Your task to perform on an android device: Open Reddit.com Image 0: 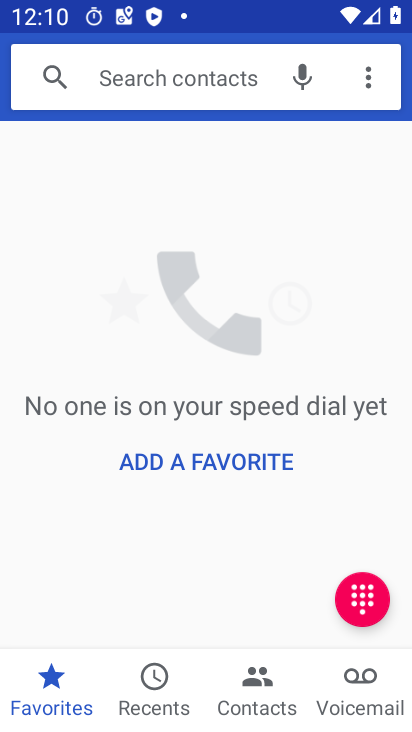
Step 0: press back button
Your task to perform on an android device: Open Reddit.com Image 1: 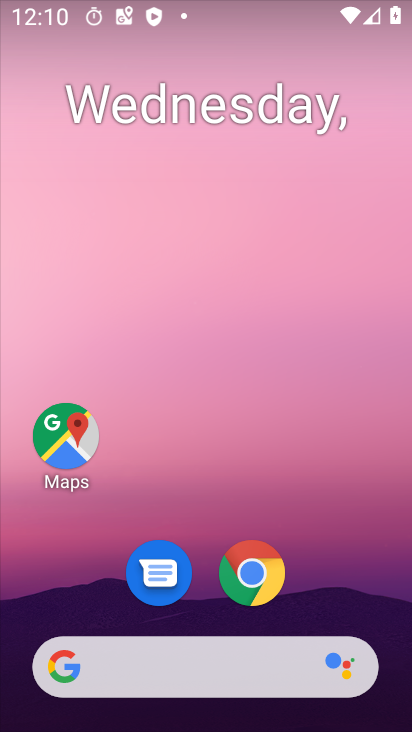
Step 1: drag from (346, 465) to (171, 8)
Your task to perform on an android device: Open Reddit.com Image 2: 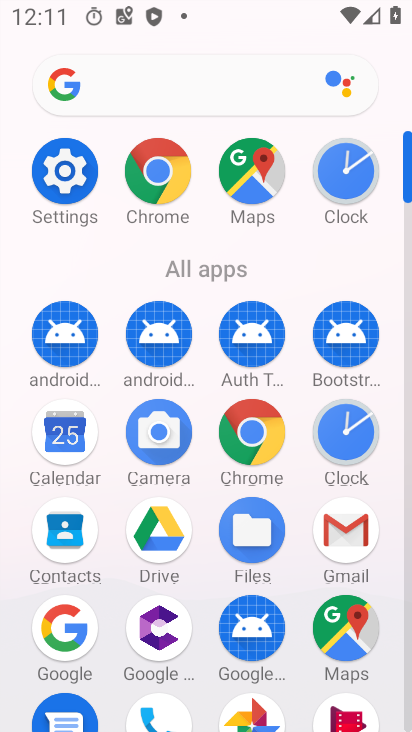
Step 2: drag from (254, 222) to (234, 15)
Your task to perform on an android device: Open Reddit.com Image 3: 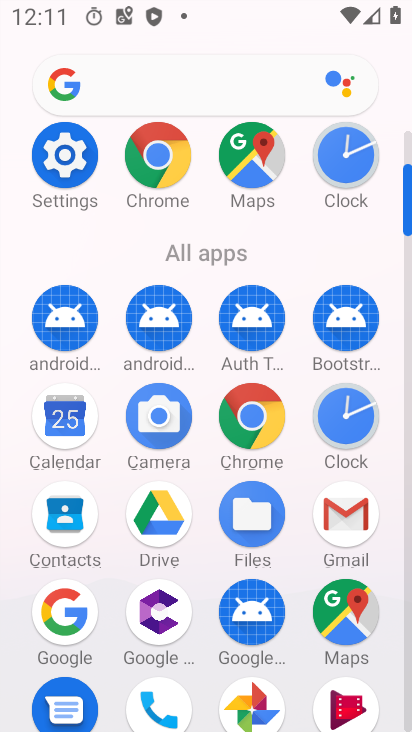
Step 3: click (176, 32)
Your task to perform on an android device: Open Reddit.com Image 4: 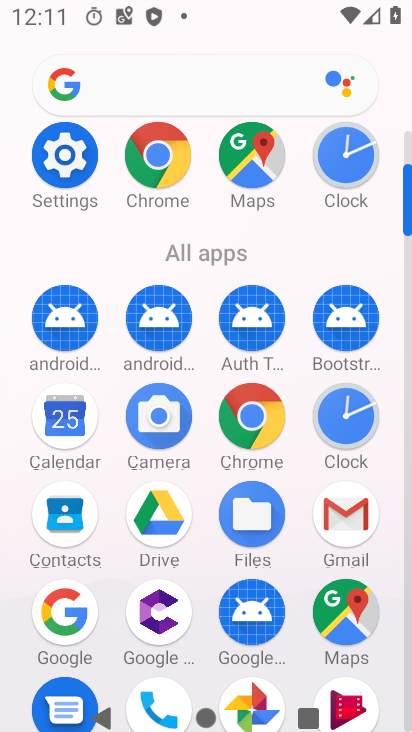
Step 4: click (181, 16)
Your task to perform on an android device: Open Reddit.com Image 5: 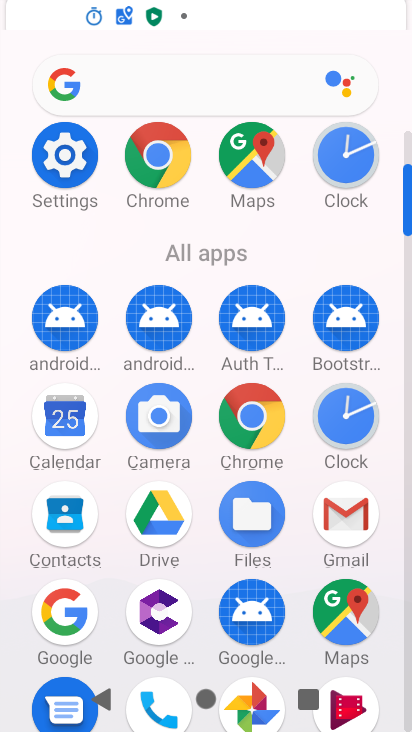
Step 5: drag from (248, 389) to (159, 14)
Your task to perform on an android device: Open Reddit.com Image 6: 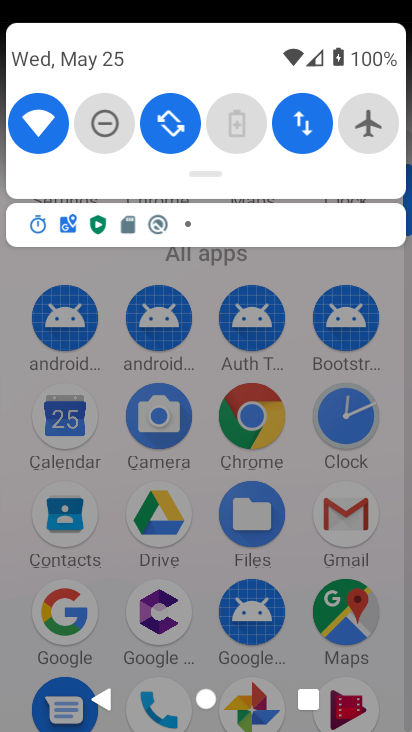
Step 6: drag from (163, 15) to (204, 7)
Your task to perform on an android device: Open Reddit.com Image 7: 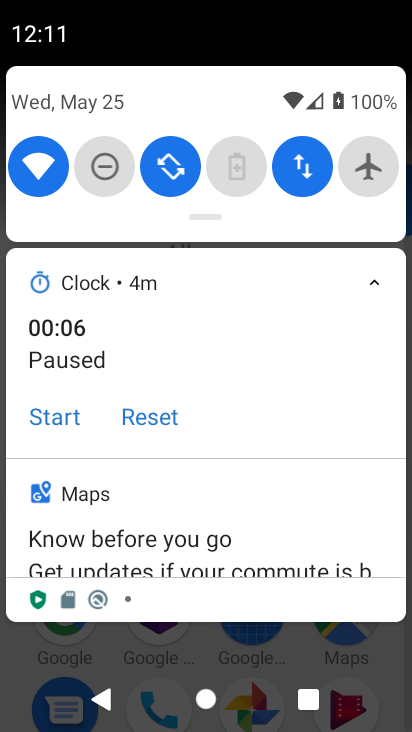
Step 7: click (207, 33)
Your task to perform on an android device: Open Reddit.com Image 8: 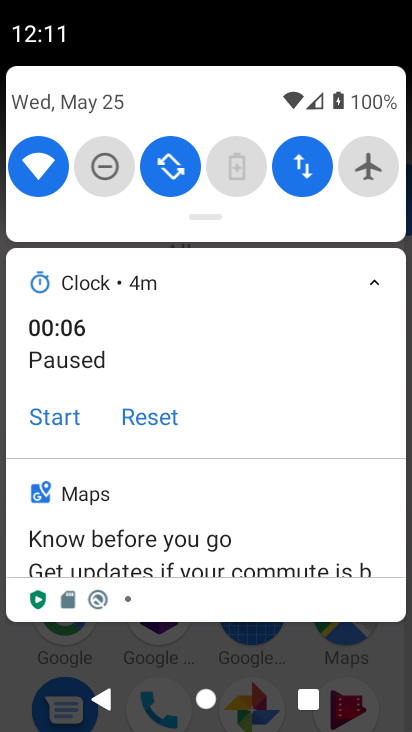
Step 8: click (207, 33)
Your task to perform on an android device: Open Reddit.com Image 9: 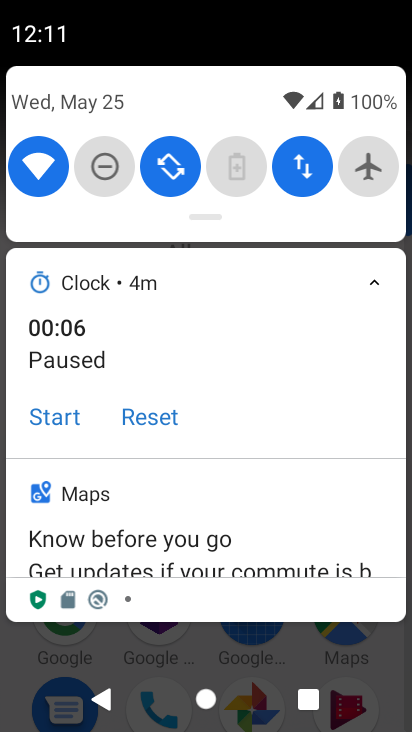
Step 9: click (207, 33)
Your task to perform on an android device: Open Reddit.com Image 10: 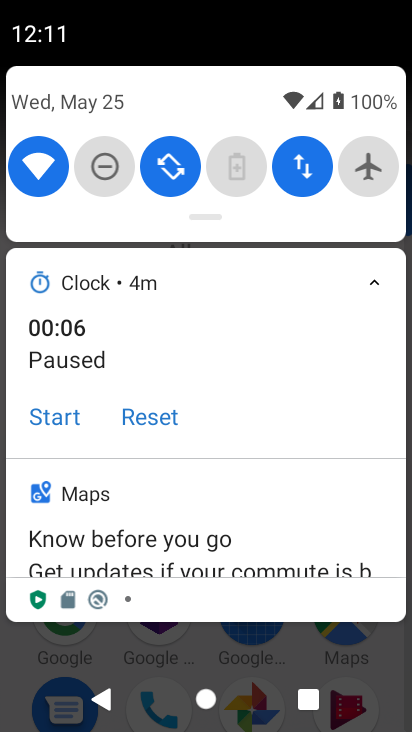
Step 10: click (206, 32)
Your task to perform on an android device: Open Reddit.com Image 11: 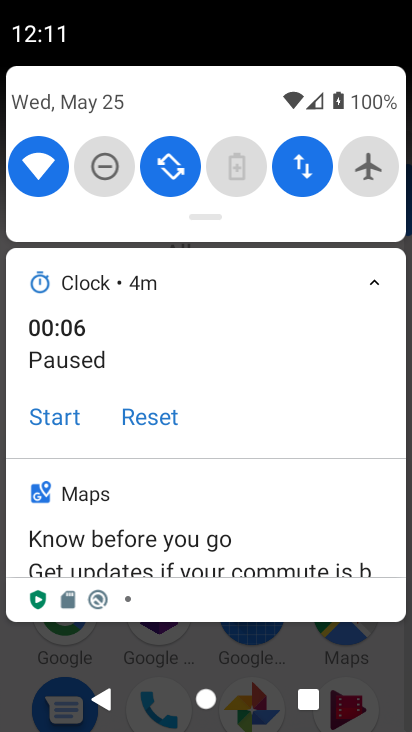
Step 11: click (206, 32)
Your task to perform on an android device: Open Reddit.com Image 12: 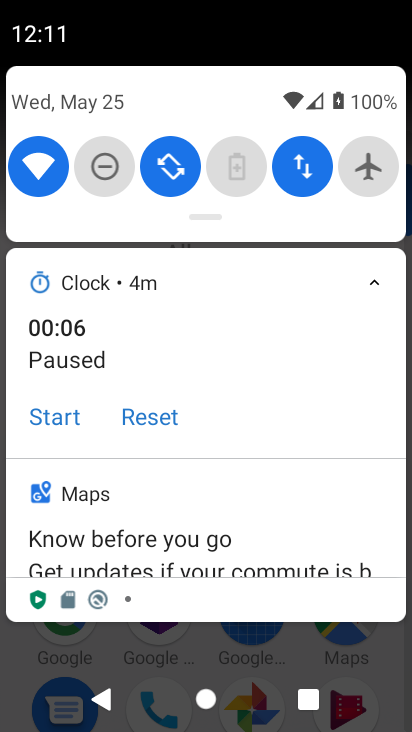
Step 12: click (206, 32)
Your task to perform on an android device: Open Reddit.com Image 13: 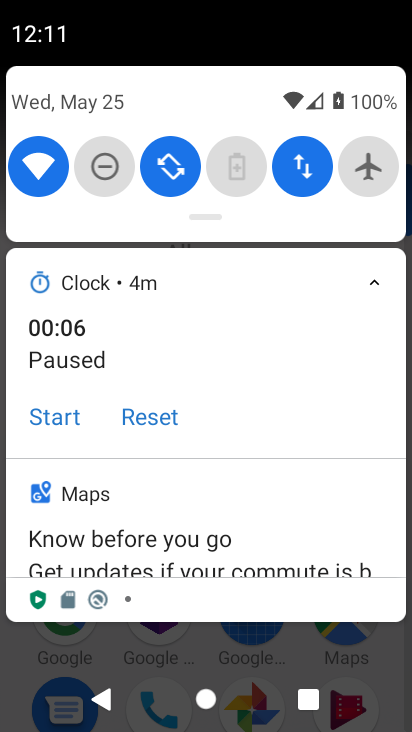
Step 13: click (206, 32)
Your task to perform on an android device: Open Reddit.com Image 14: 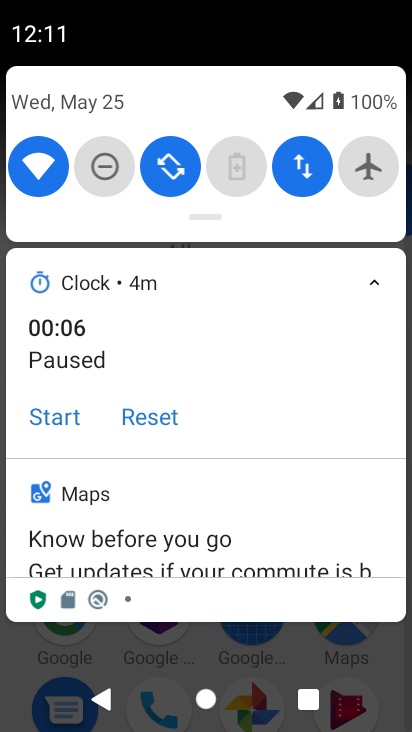
Step 14: click (209, 40)
Your task to perform on an android device: Open Reddit.com Image 15: 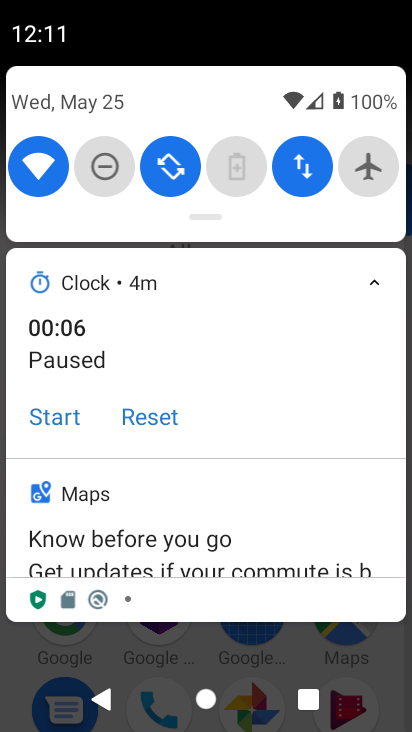
Step 15: click (272, 661)
Your task to perform on an android device: Open Reddit.com Image 16: 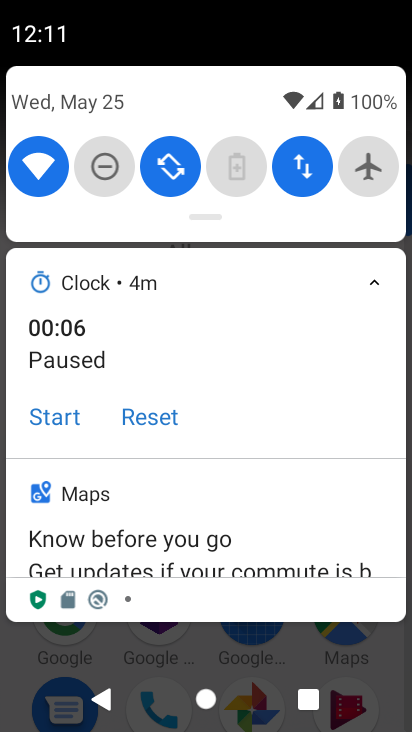
Step 16: drag from (280, 649) to (202, 639)
Your task to perform on an android device: Open Reddit.com Image 17: 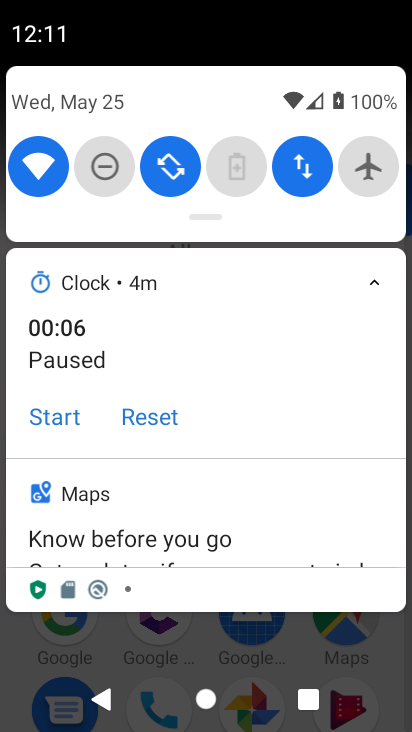
Step 17: drag from (202, 638) to (177, 29)
Your task to perform on an android device: Open Reddit.com Image 18: 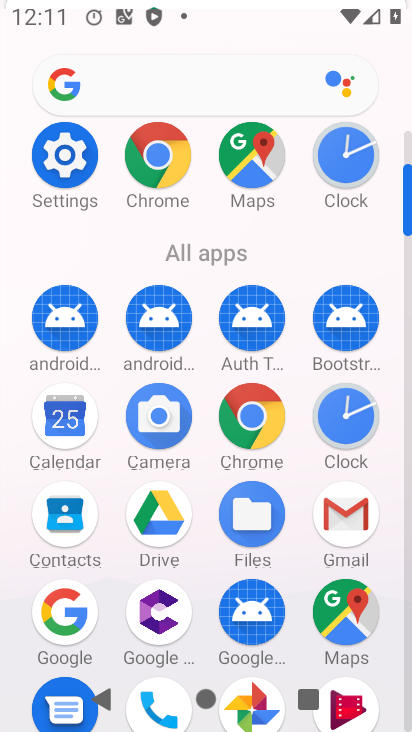
Step 18: press back button
Your task to perform on an android device: Open Reddit.com Image 19: 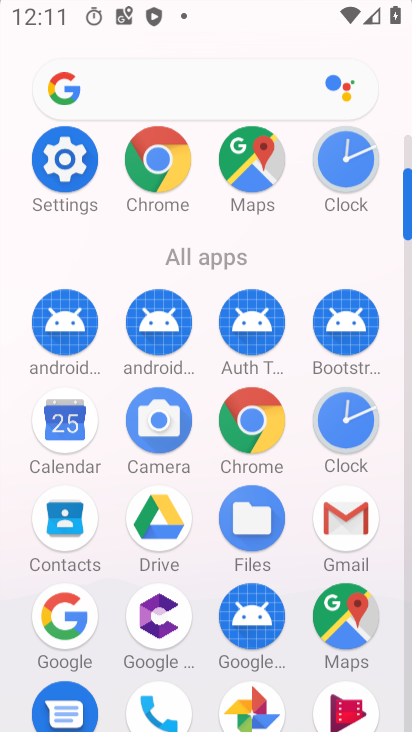
Step 19: press back button
Your task to perform on an android device: Open Reddit.com Image 20: 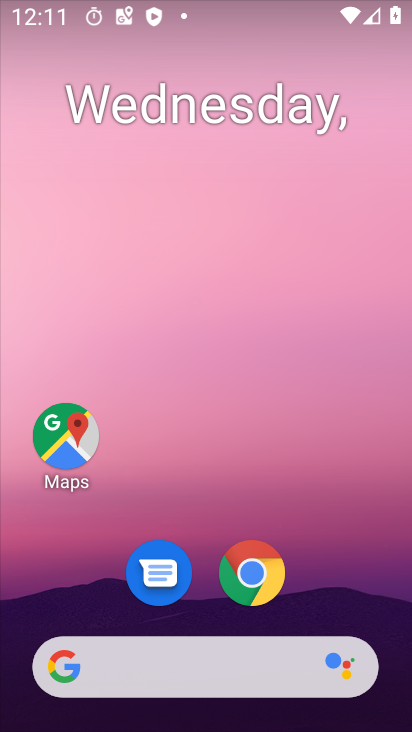
Step 20: drag from (259, 669) to (150, 128)
Your task to perform on an android device: Open Reddit.com Image 21: 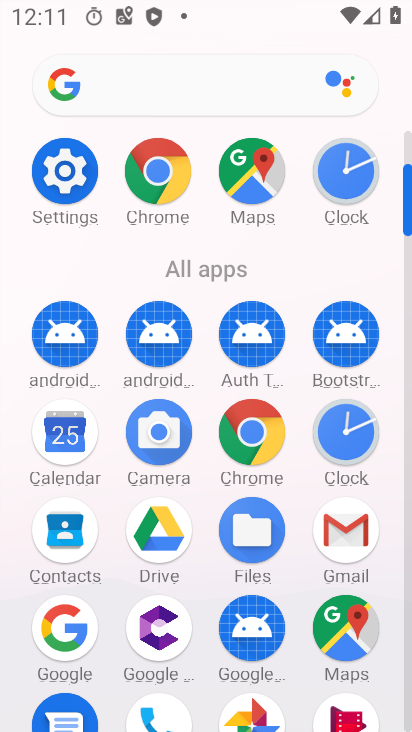
Step 21: drag from (328, 635) to (151, 21)
Your task to perform on an android device: Open Reddit.com Image 22: 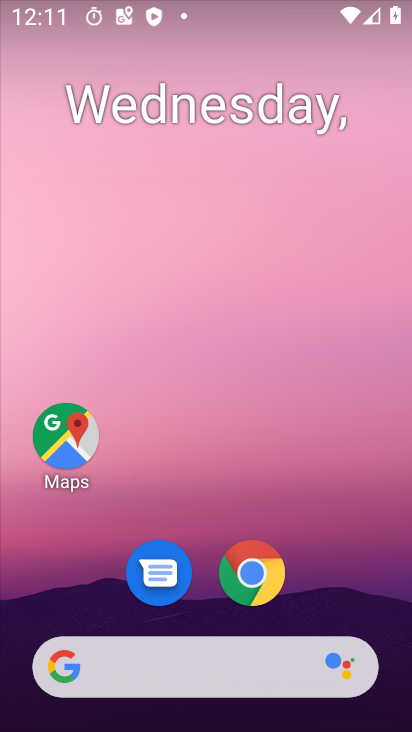
Step 22: drag from (352, 582) to (168, 6)
Your task to perform on an android device: Open Reddit.com Image 23: 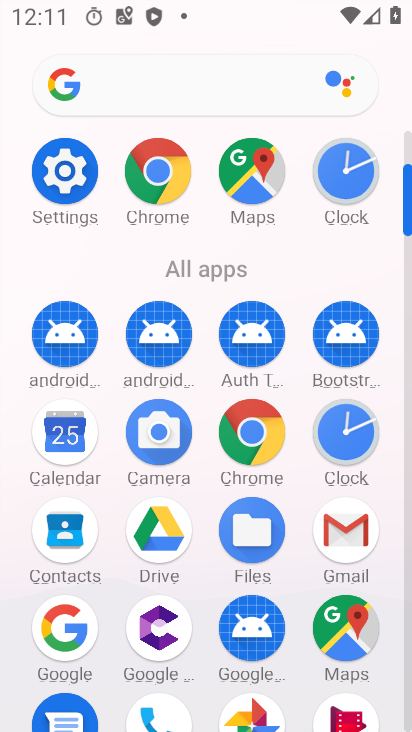
Step 23: drag from (340, 611) to (190, 51)
Your task to perform on an android device: Open Reddit.com Image 24: 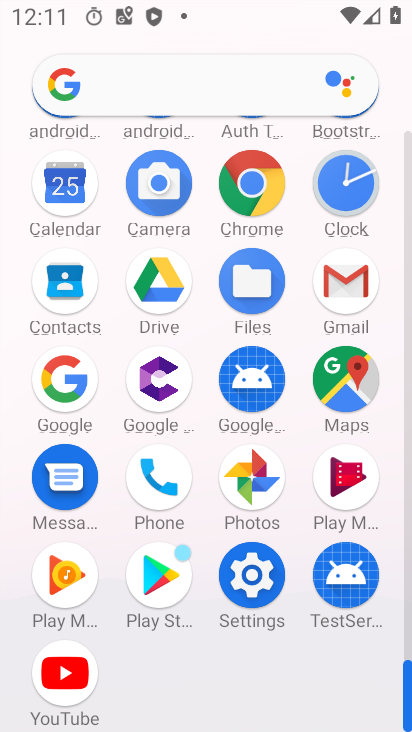
Step 24: click (240, 203)
Your task to perform on an android device: Open Reddit.com Image 25: 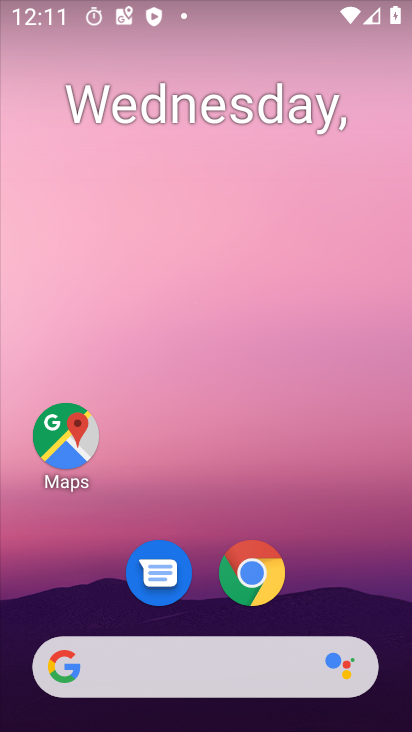
Step 25: drag from (325, 583) to (57, 4)
Your task to perform on an android device: Open Reddit.com Image 26: 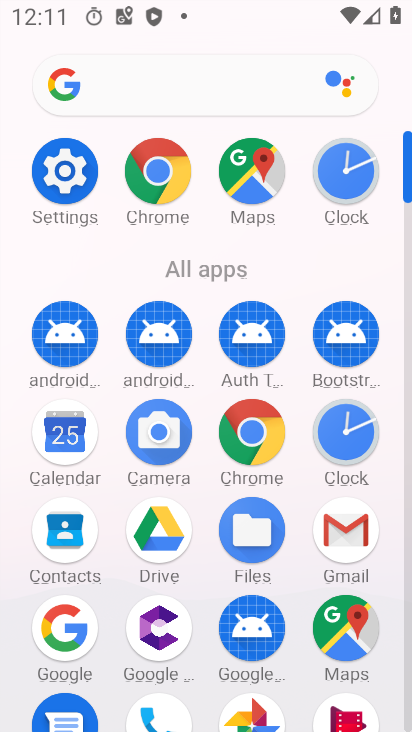
Step 26: click (146, 183)
Your task to perform on an android device: Open Reddit.com Image 27: 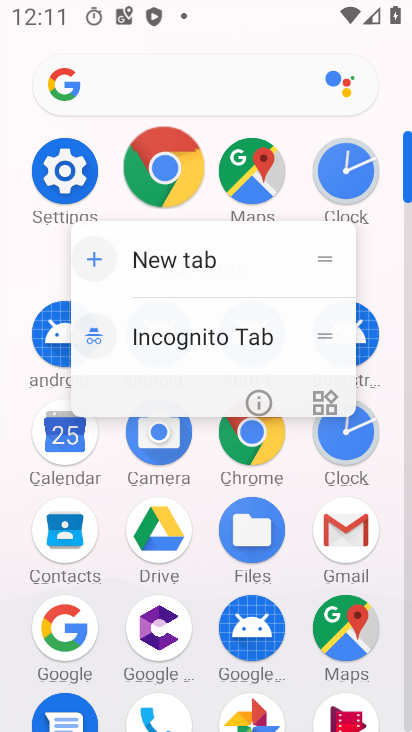
Step 27: click (161, 174)
Your task to perform on an android device: Open Reddit.com Image 28: 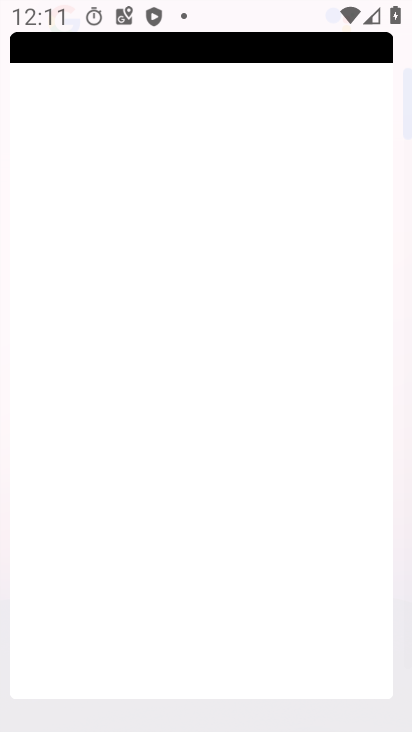
Step 28: click (160, 173)
Your task to perform on an android device: Open Reddit.com Image 29: 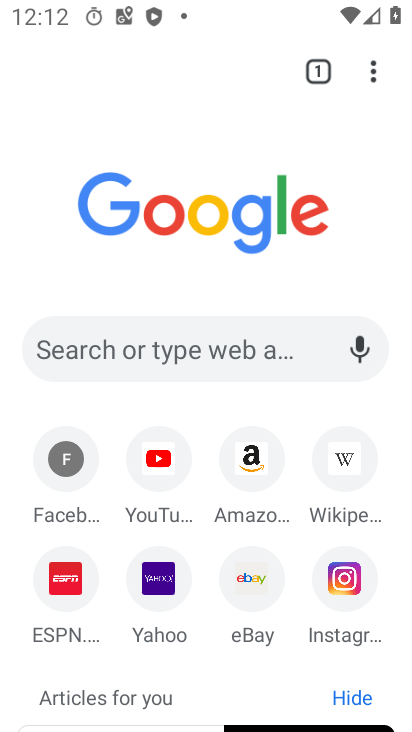
Step 29: click (69, 345)
Your task to perform on an android device: Open Reddit.com Image 30: 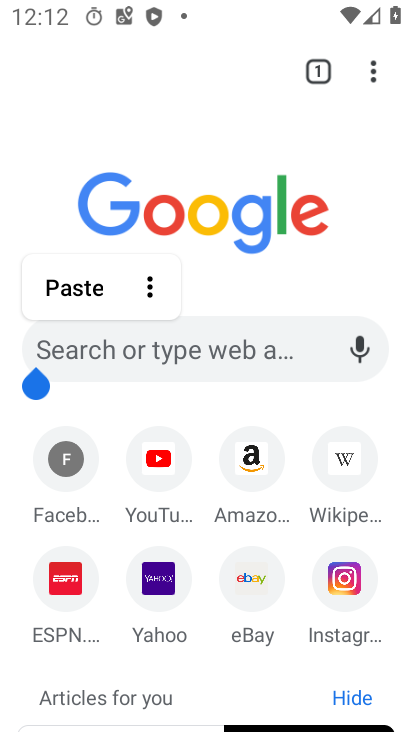
Step 30: click (67, 349)
Your task to perform on an android device: Open Reddit.com Image 31: 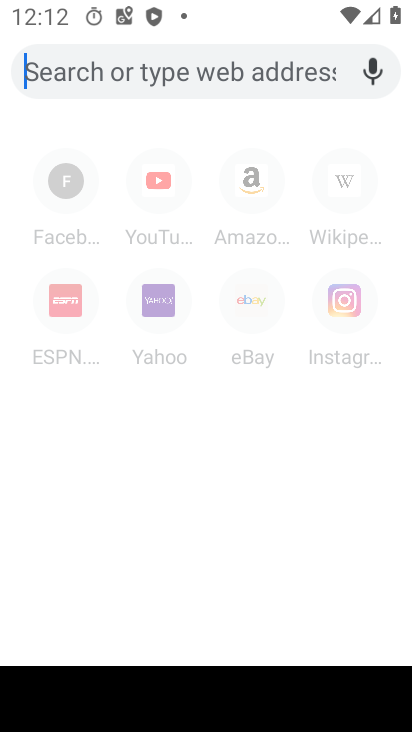
Step 31: type "reddit.com"
Your task to perform on an android device: Open Reddit.com Image 32: 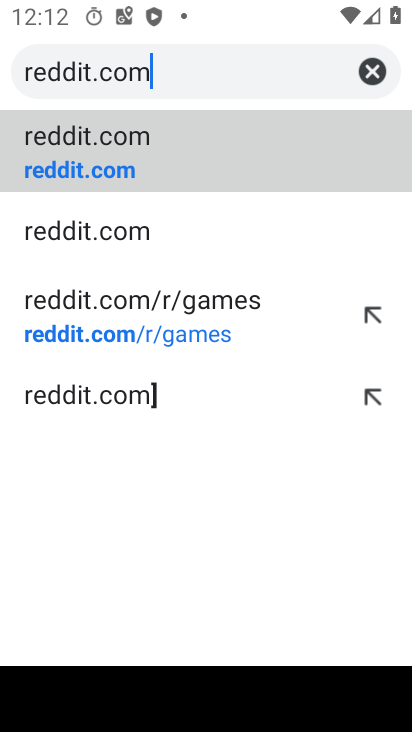
Step 32: click (58, 178)
Your task to perform on an android device: Open Reddit.com Image 33: 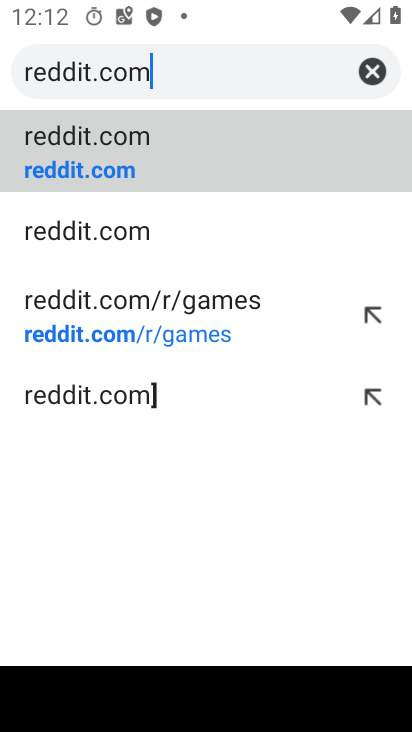
Step 33: click (58, 174)
Your task to perform on an android device: Open Reddit.com Image 34: 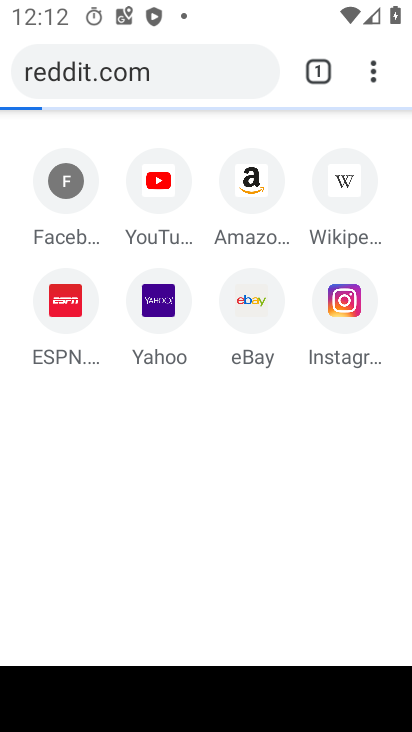
Step 34: click (59, 172)
Your task to perform on an android device: Open Reddit.com Image 35: 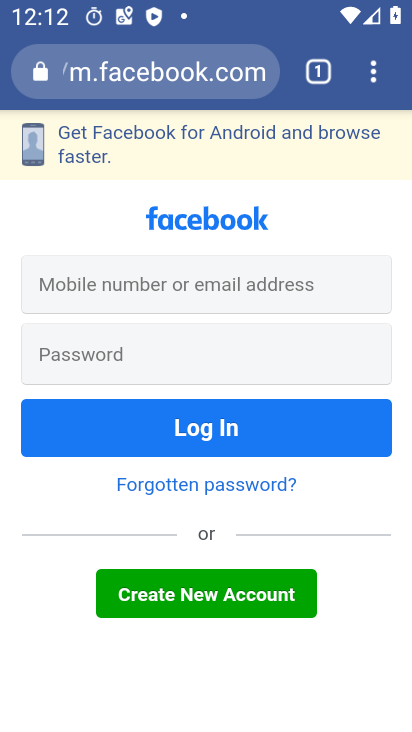
Step 35: task complete